Your task to perform on an android device: check battery use Image 0: 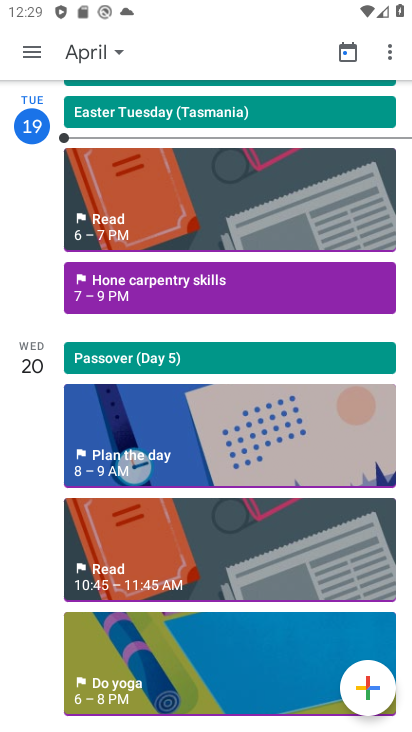
Step 0: press home button
Your task to perform on an android device: check battery use Image 1: 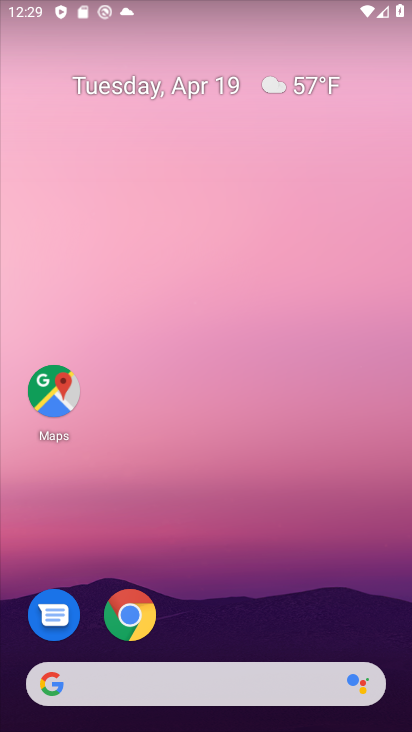
Step 1: drag from (206, 624) to (209, 257)
Your task to perform on an android device: check battery use Image 2: 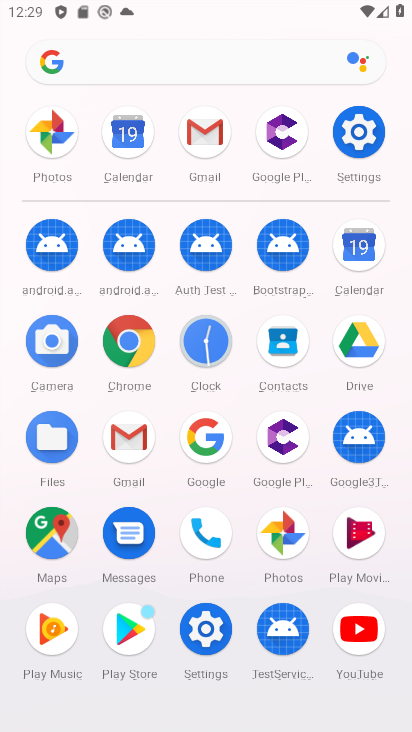
Step 2: click (358, 126)
Your task to perform on an android device: check battery use Image 3: 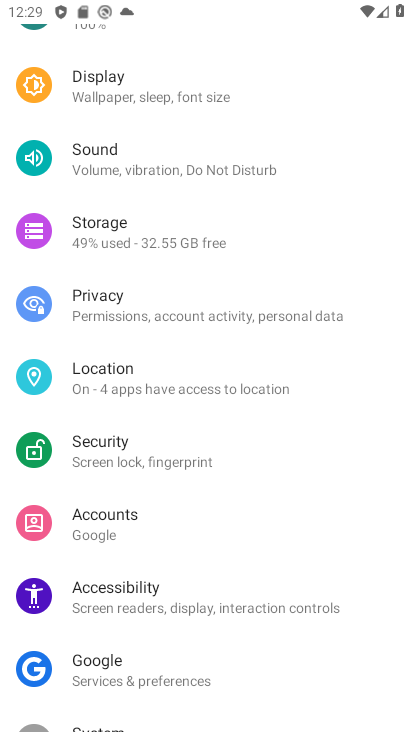
Step 3: drag from (185, 246) to (185, 570)
Your task to perform on an android device: check battery use Image 4: 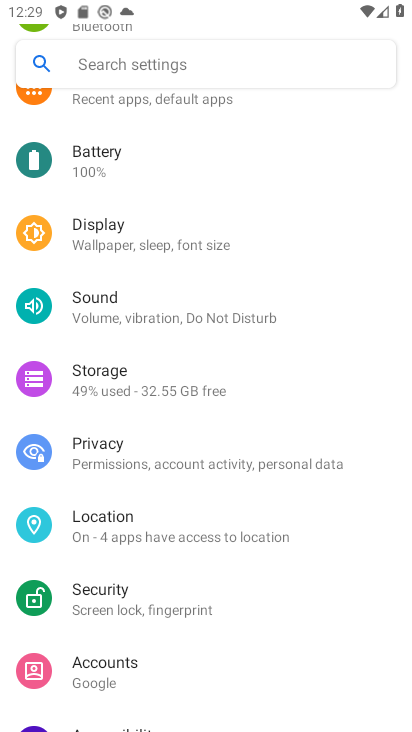
Step 4: click (104, 164)
Your task to perform on an android device: check battery use Image 5: 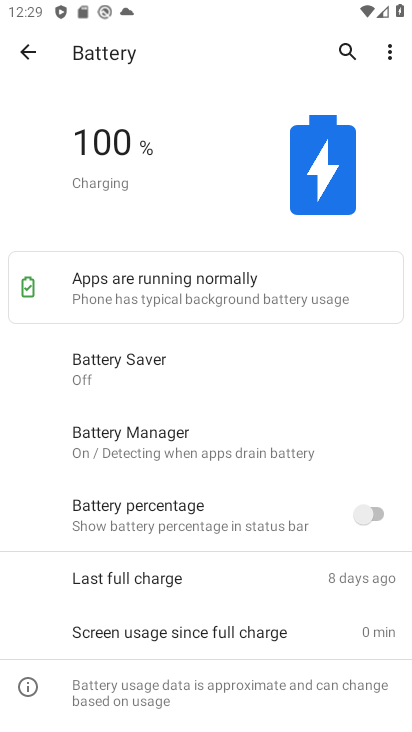
Step 5: drag from (222, 615) to (221, 353)
Your task to perform on an android device: check battery use Image 6: 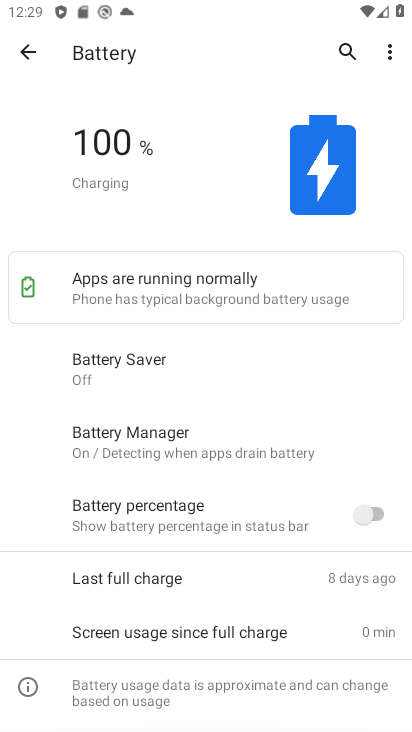
Step 6: drag from (162, 560) to (151, 283)
Your task to perform on an android device: check battery use Image 7: 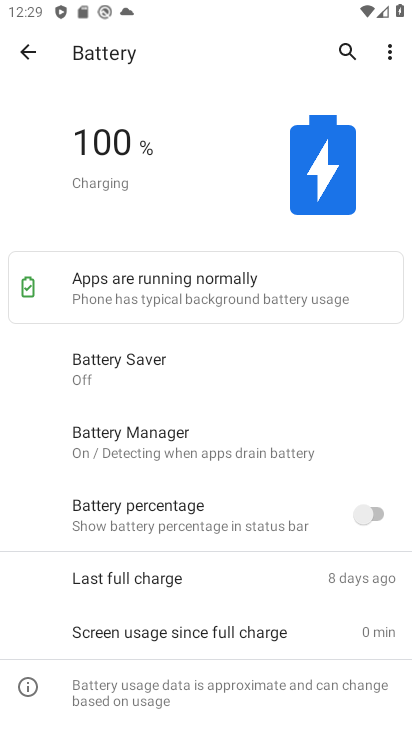
Step 7: click (390, 51)
Your task to perform on an android device: check battery use Image 8: 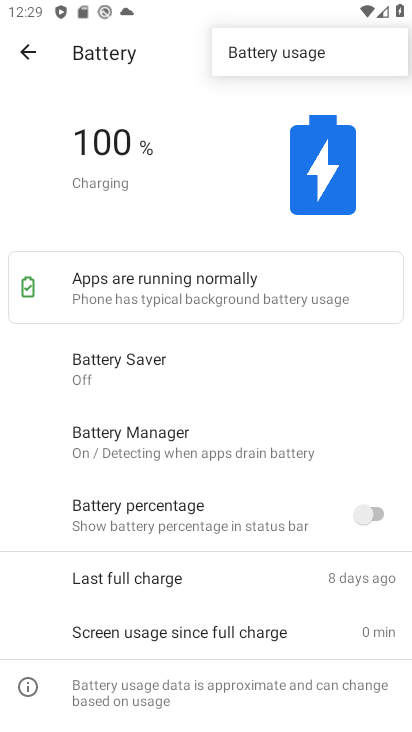
Step 8: click (360, 58)
Your task to perform on an android device: check battery use Image 9: 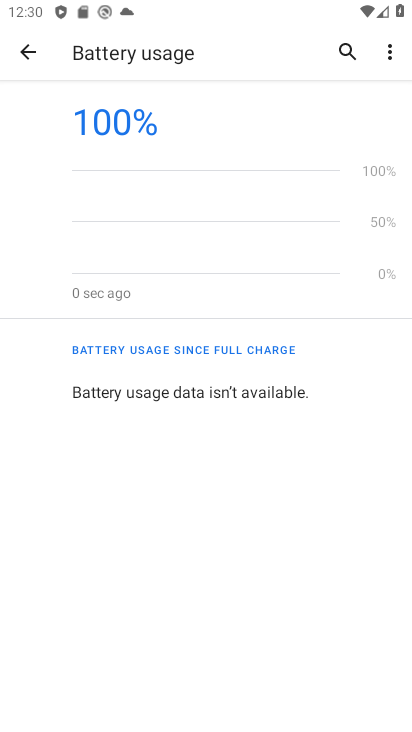
Step 9: task complete